Your task to perform on an android device: turn off location history Image 0: 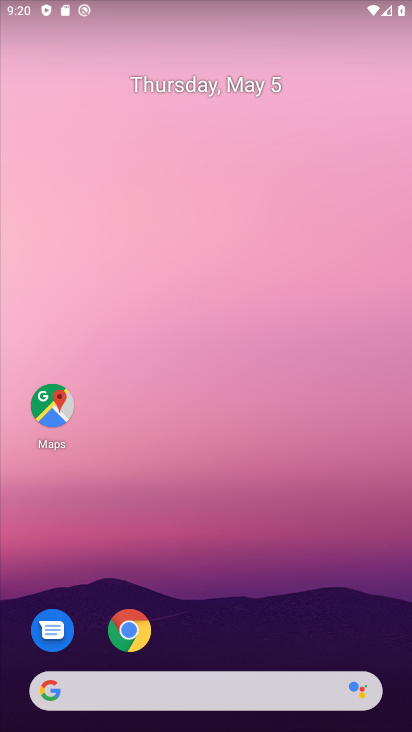
Step 0: drag from (176, 601) to (216, 72)
Your task to perform on an android device: turn off location history Image 1: 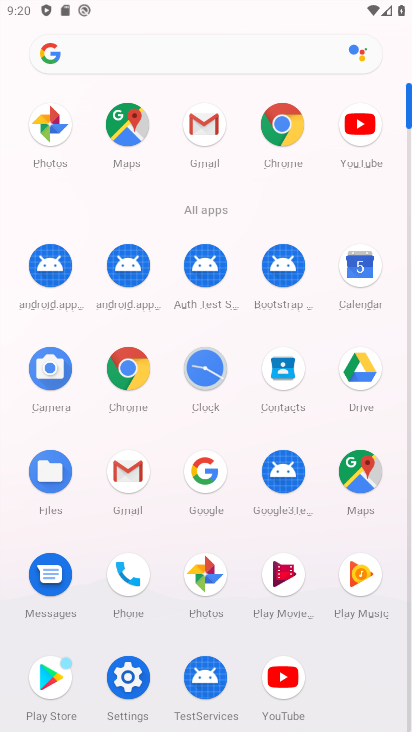
Step 1: click (125, 695)
Your task to perform on an android device: turn off location history Image 2: 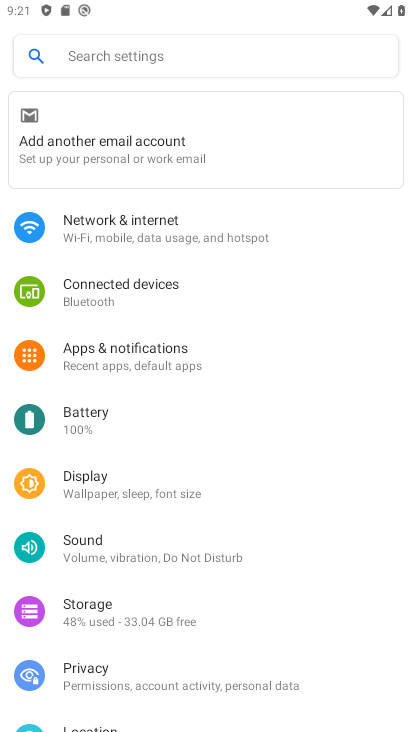
Step 2: drag from (125, 648) to (199, 187)
Your task to perform on an android device: turn off location history Image 3: 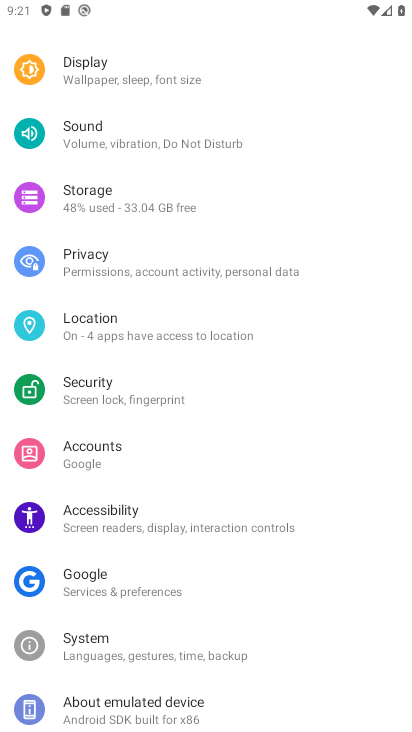
Step 3: click (173, 342)
Your task to perform on an android device: turn off location history Image 4: 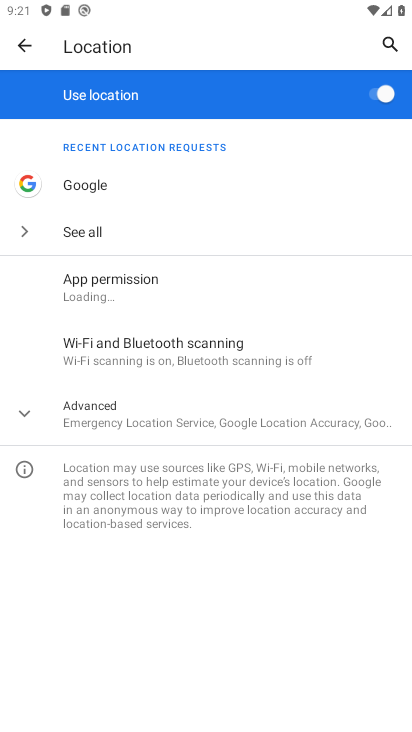
Step 4: click (132, 403)
Your task to perform on an android device: turn off location history Image 5: 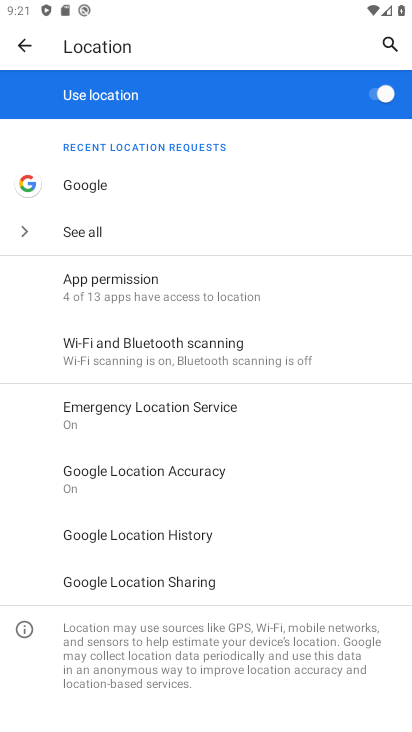
Step 5: click (147, 546)
Your task to perform on an android device: turn off location history Image 6: 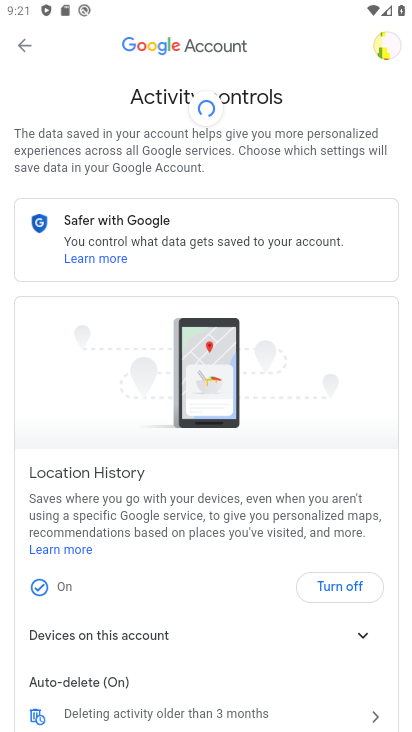
Step 6: click (320, 587)
Your task to perform on an android device: turn off location history Image 7: 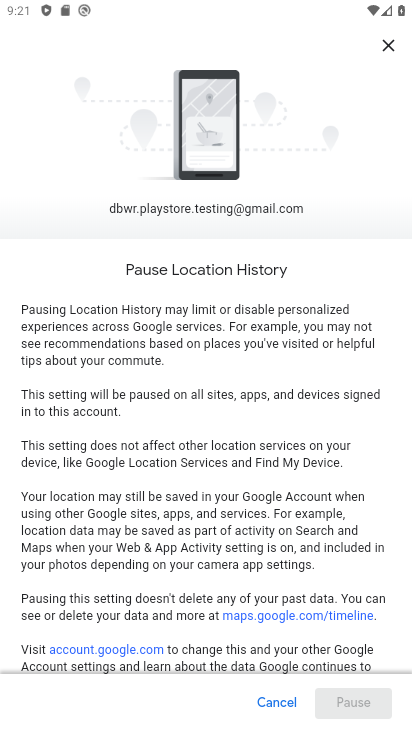
Step 7: drag from (330, 614) to (324, 180)
Your task to perform on an android device: turn off location history Image 8: 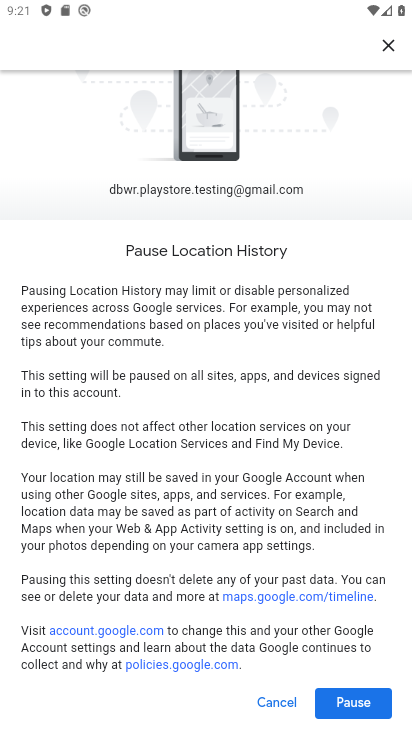
Step 8: click (352, 700)
Your task to perform on an android device: turn off location history Image 9: 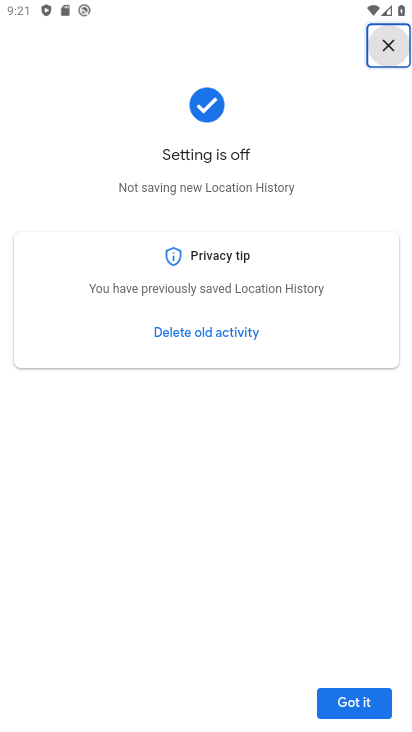
Step 9: task complete